Your task to perform on an android device: Open Yahoo.com Image 0: 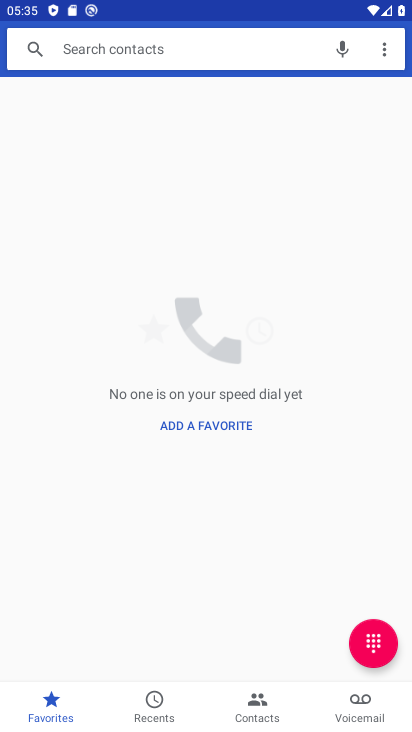
Step 0: press home button
Your task to perform on an android device: Open Yahoo.com Image 1: 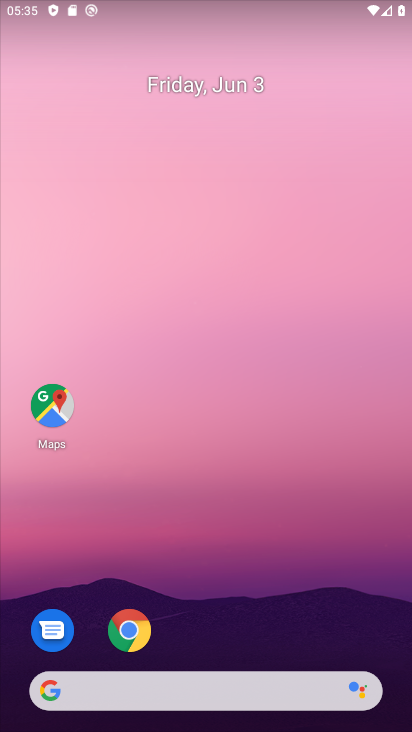
Step 1: click (137, 628)
Your task to perform on an android device: Open Yahoo.com Image 2: 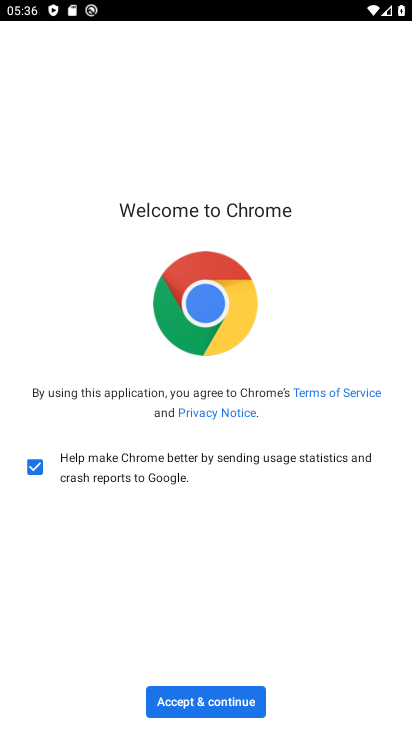
Step 2: click (199, 697)
Your task to perform on an android device: Open Yahoo.com Image 3: 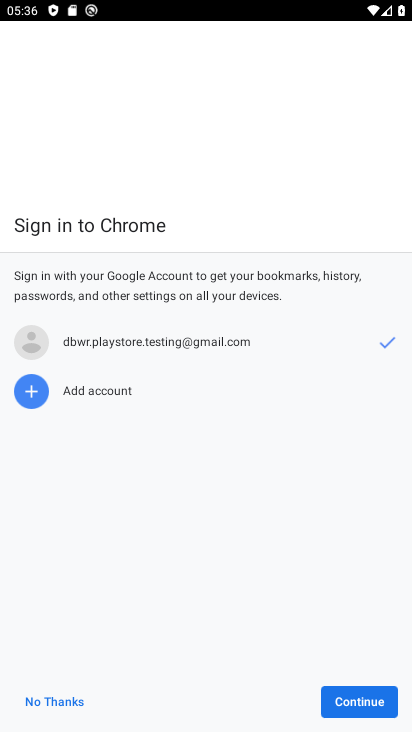
Step 3: click (329, 707)
Your task to perform on an android device: Open Yahoo.com Image 4: 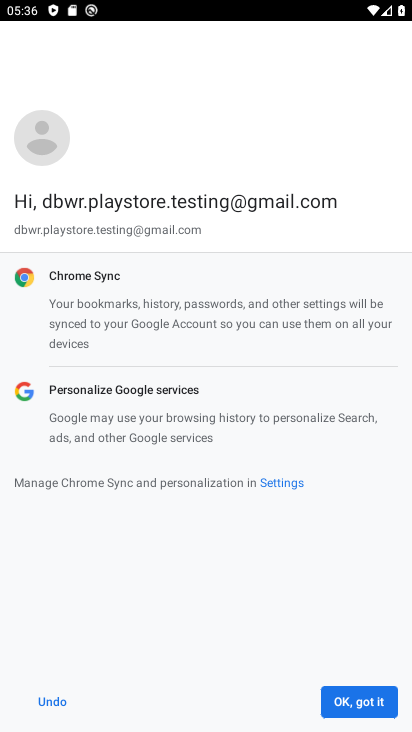
Step 4: click (329, 707)
Your task to perform on an android device: Open Yahoo.com Image 5: 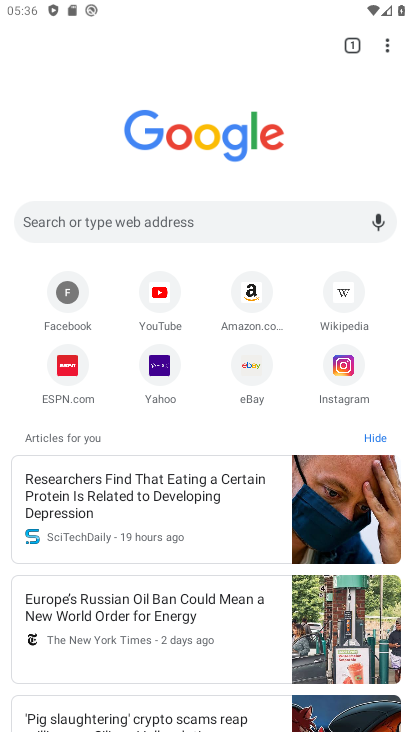
Step 5: click (163, 373)
Your task to perform on an android device: Open Yahoo.com Image 6: 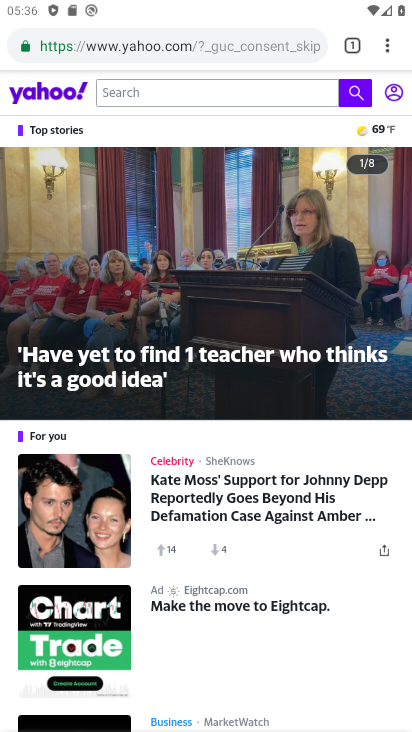
Step 6: task complete